Your task to perform on an android device: empty trash in google photos Image 0: 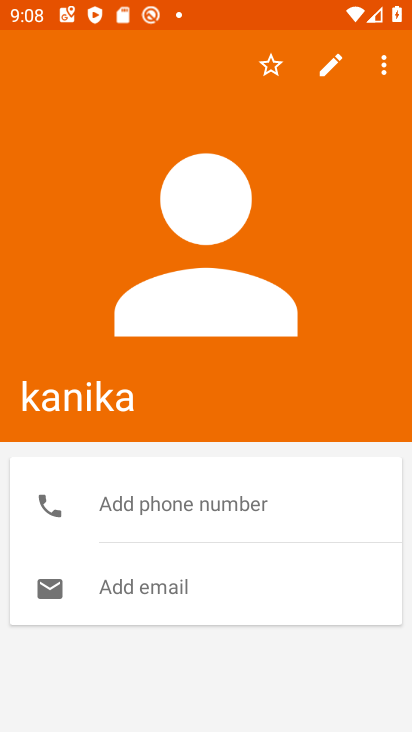
Step 0: press home button
Your task to perform on an android device: empty trash in google photos Image 1: 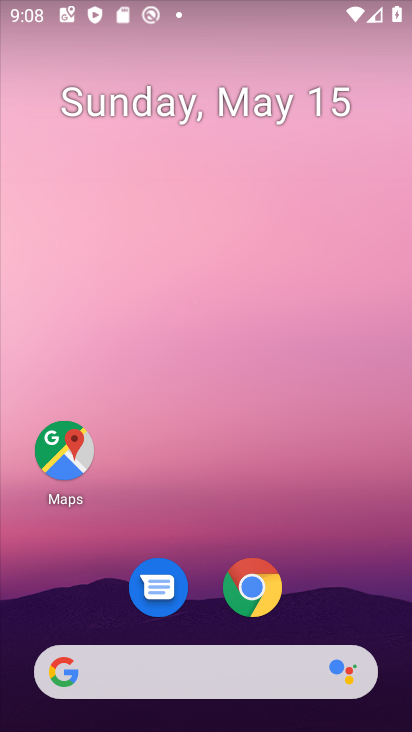
Step 1: drag from (387, 641) to (257, 47)
Your task to perform on an android device: empty trash in google photos Image 2: 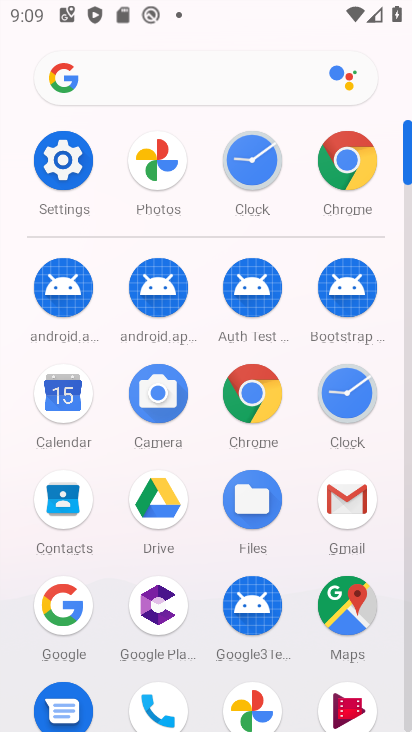
Step 2: click (255, 704)
Your task to perform on an android device: empty trash in google photos Image 3: 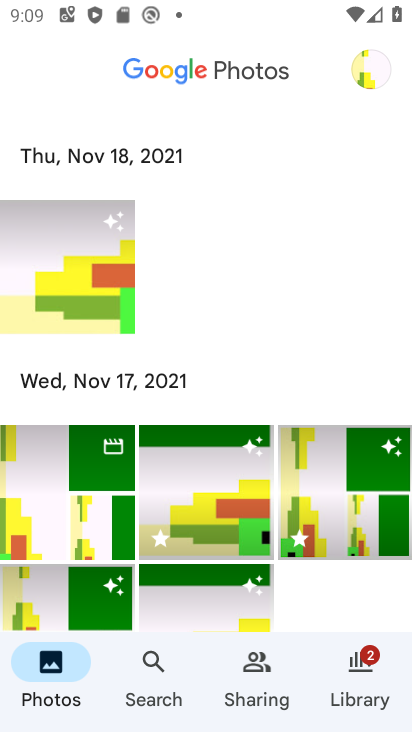
Step 3: click (367, 671)
Your task to perform on an android device: empty trash in google photos Image 4: 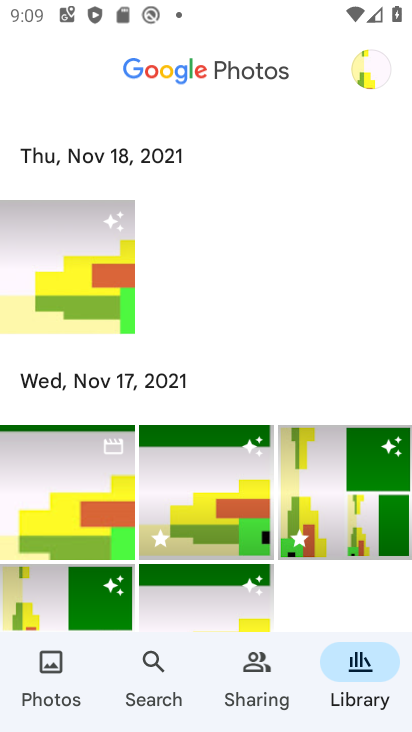
Step 4: click (344, 682)
Your task to perform on an android device: empty trash in google photos Image 5: 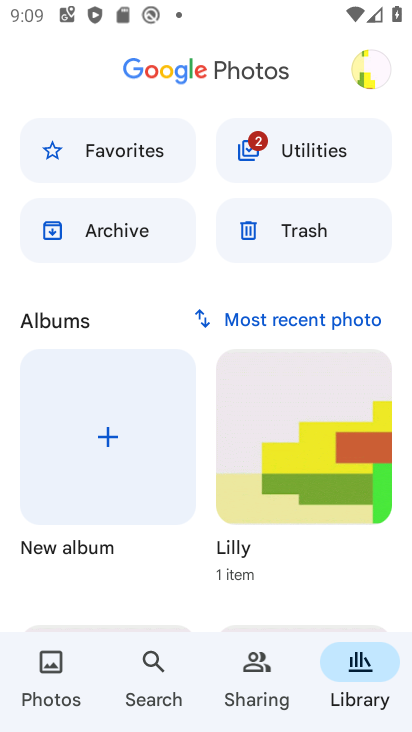
Step 5: click (310, 243)
Your task to perform on an android device: empty trash in google photos Image 6: 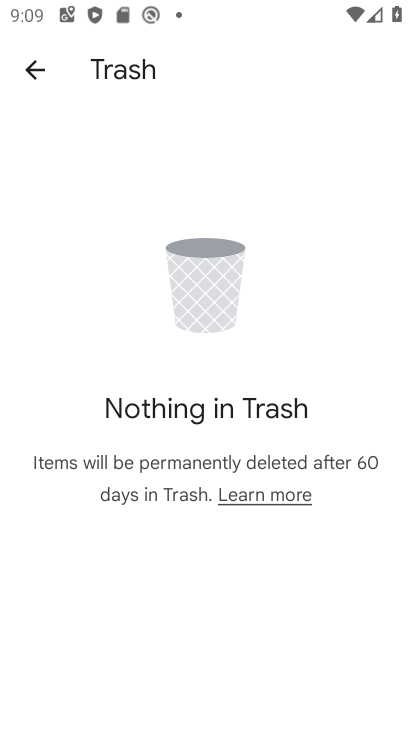
Step 6: task complete